Your task to perform on an android device: make emails show in primary in the gmail app Image 0: 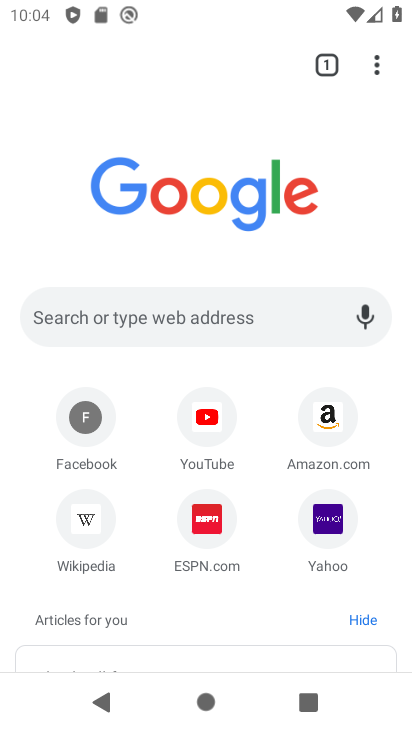
Step 0: press home button
Your task to perform on an android device: make emails show in primary in the gmail app Image 1: 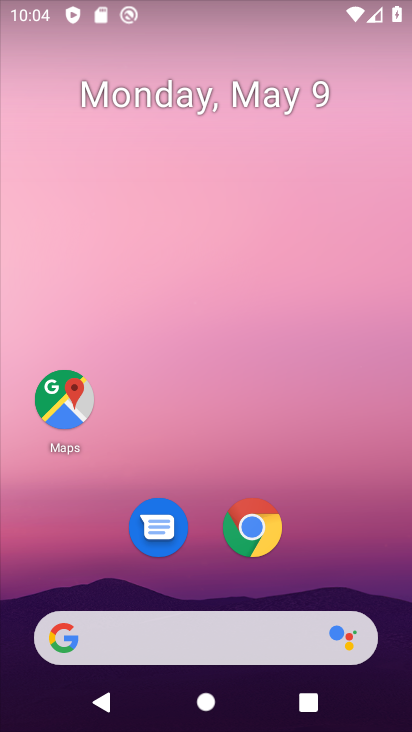
Step 1: drag from (328, 551) to (256, 190)
Your task to perform on an android device: make emails show in primary in the gmail app Image 2: 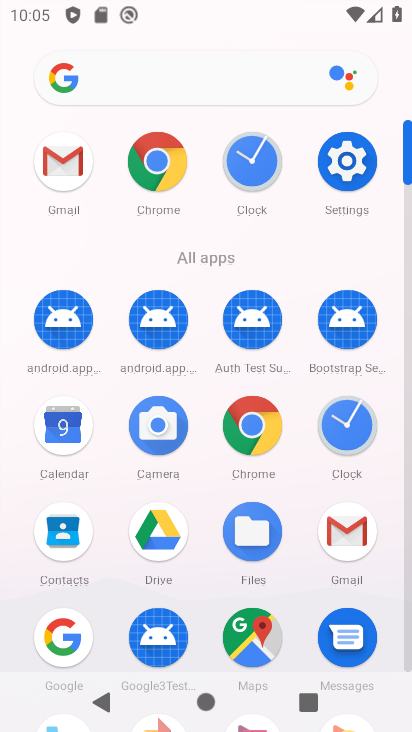
Step 2: click (54, 162)
Your task to perform on an android device: make emails show in primary in the gmail app Image 3: 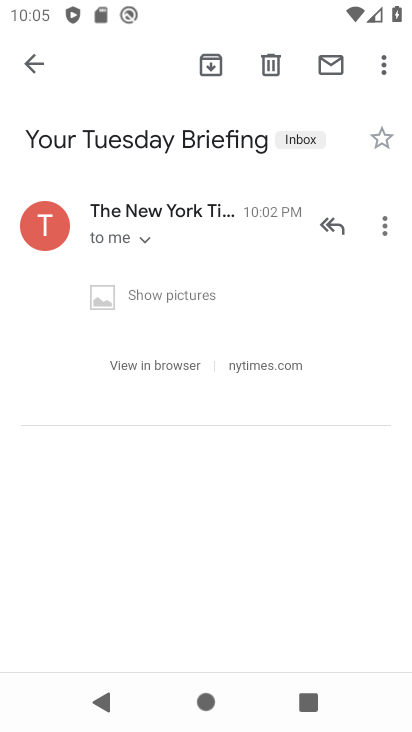
Step 3: press back button
Your task to perform on an android device: make emails show in primary in the gmail app Image 4: 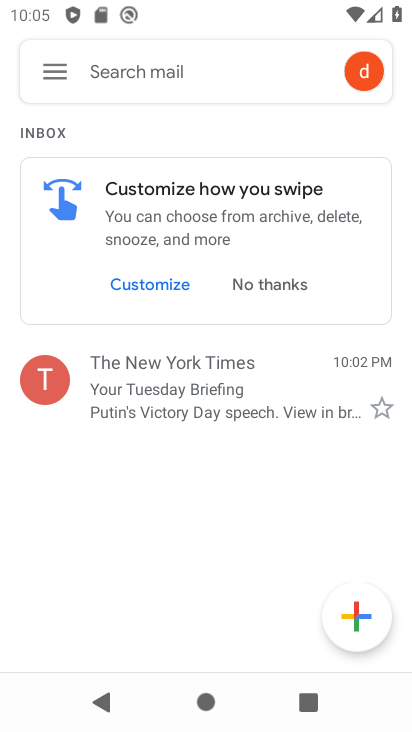
Step 4: press back button
Your task to perform on an android device: make emails show in primary in the gmail app Image 5: 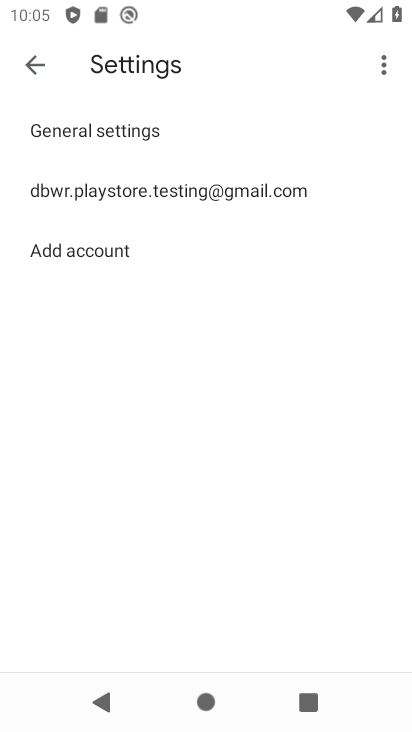
Step 5: press back button
Your task to perform on an android device: make emails show in primary in the gmail app Image 6: 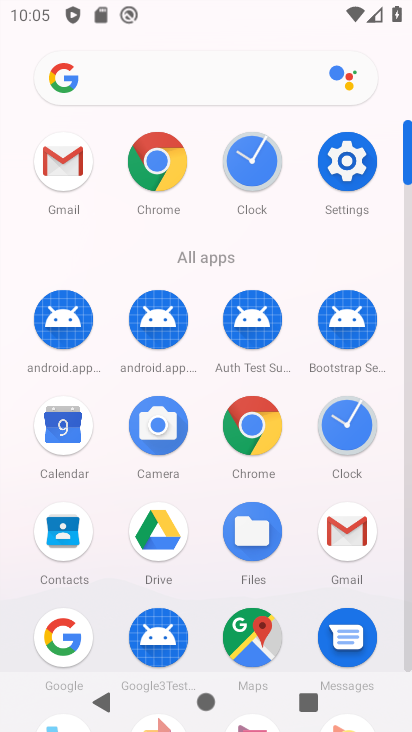
Step 6: click (57, 167)
Your task to perform on an android device: make emails show in primary in the gmail app Image 7: 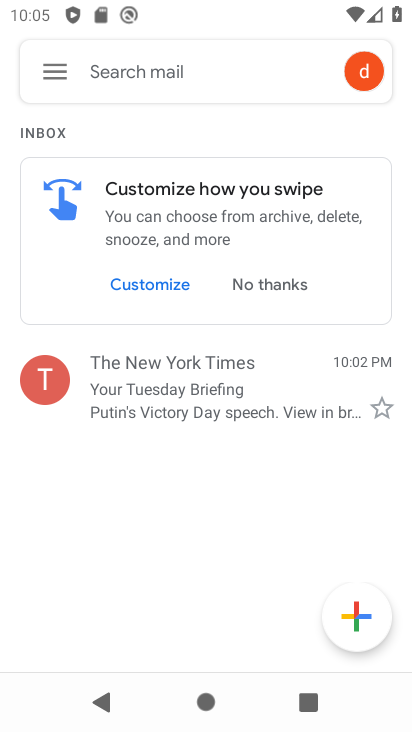
Step 7: click (64, 79)
Your task to perform on an android device: make emails show in primary in the gmail app Image 8: 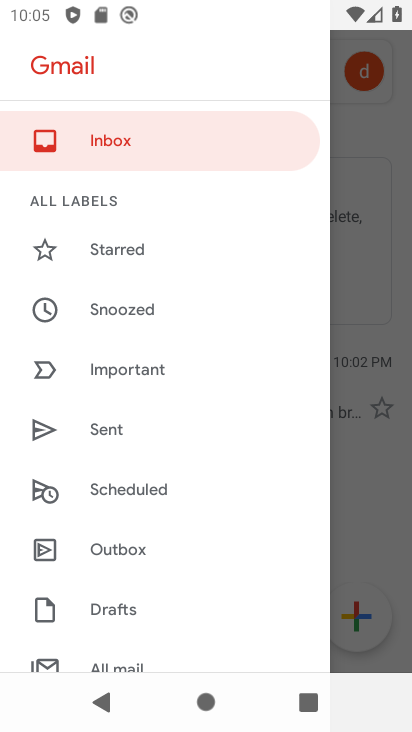
Step 8: drag from (91, 510) to (130, 382)
Your task to perform on an android device: make emails show in primary in the gmail app Image 9: 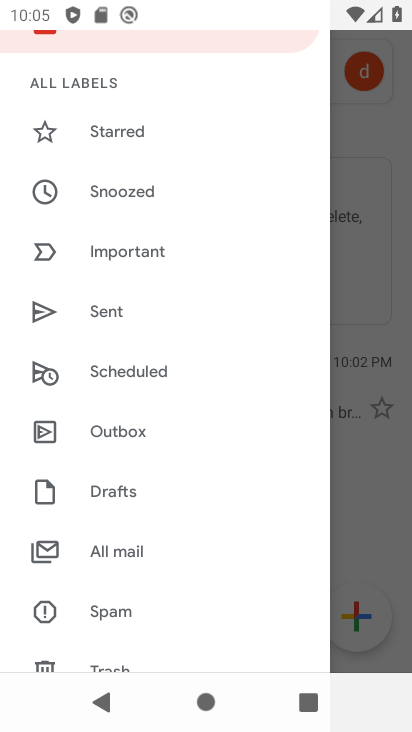
Step 9: drag from (124, 560) to (174, 422)
Your task to perform on an android device: make emails show in primary in the gmail app Image 10: 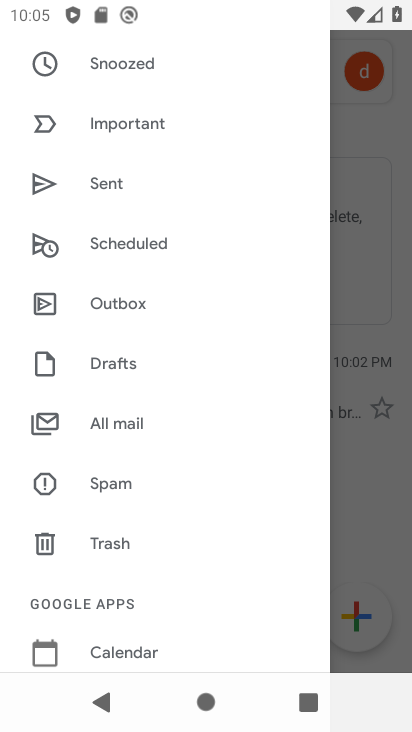
Step 10: drag from (112, 576) to (171, 440)
Your task to perform on an android device: make emails show in primary in the gmail app Image 11: 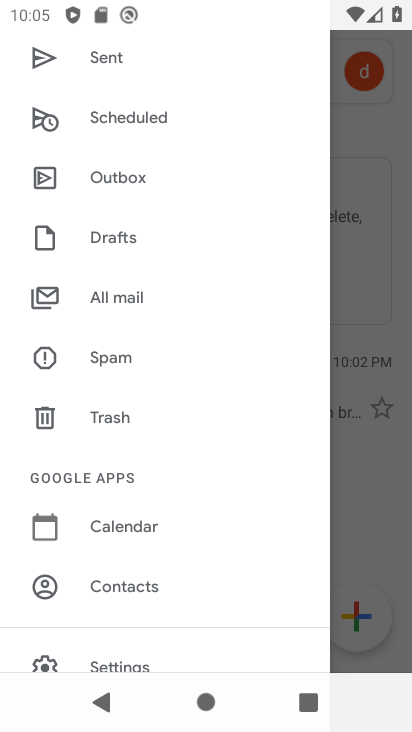
Step 11: drag from (97, 647) to (181, 518)
Your task to perform on an android device: make emails show in primary in the gmail app Image 12: 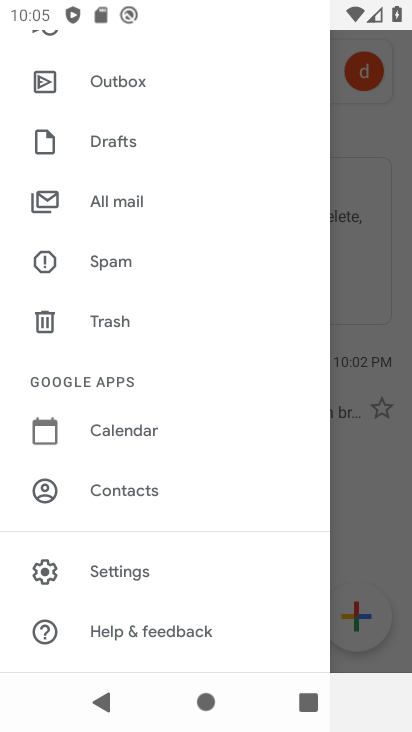
Step 12: click (118, 567)
Your task to perform on an android device: make emails show in primary in the gmail app Image 13: 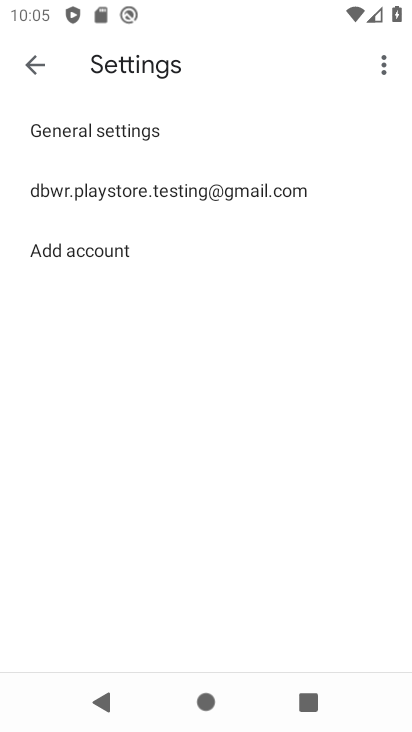
Step 13: click (175, 185)
Your task to perform on an android device: make emails show in primary in the gmail app Image 14: 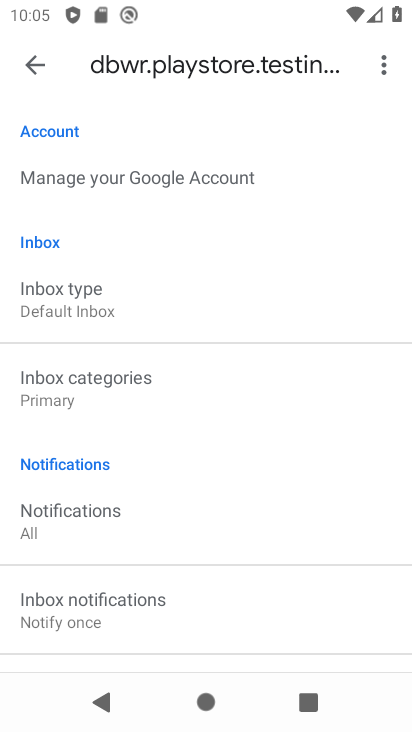
Step 14: press back button
Your task to perform on an android device: make emails show in primary in the gmail app Image 15: 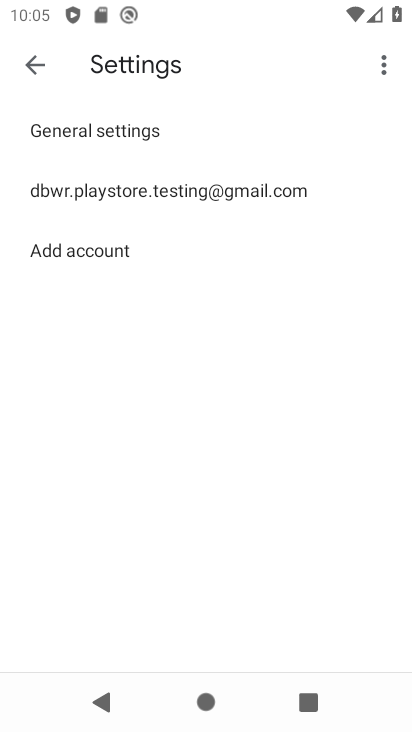
Step 15: press back button
Your task to perform on an android device: make emails show in primary in the gmail app Image 16: 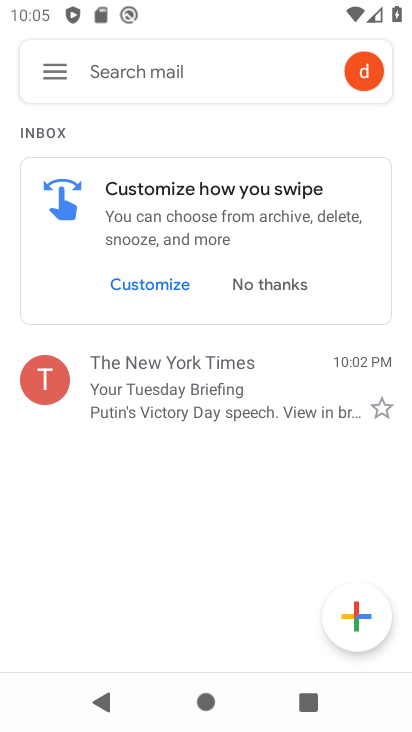
Step 16: click (42, 73)
Your task to perform on an android device: make emails show in primary in the gmail app Image 17: 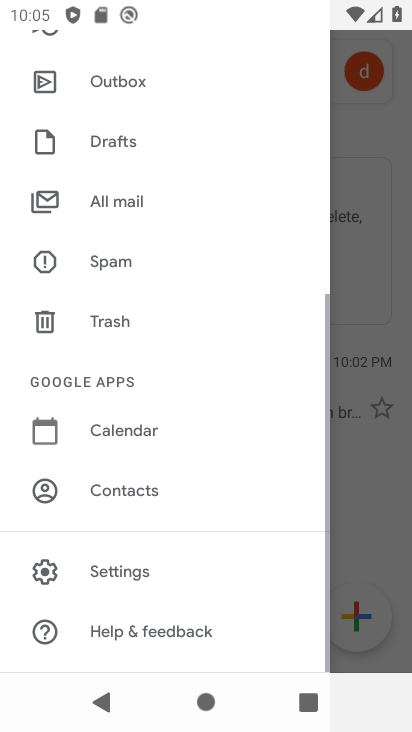
Step 17: drag from (121, 132) to (169, 444)
Your task to perform on an android device: make emails show in primary in the gmail app Image 18: 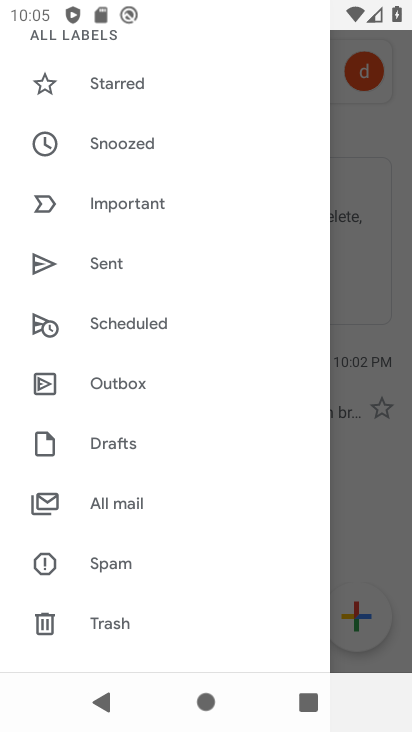
Step 18: drag from (168, 146) to (188, 515)
Your task to perform on an android device: make emails show in primary in the gmail app Image 19: 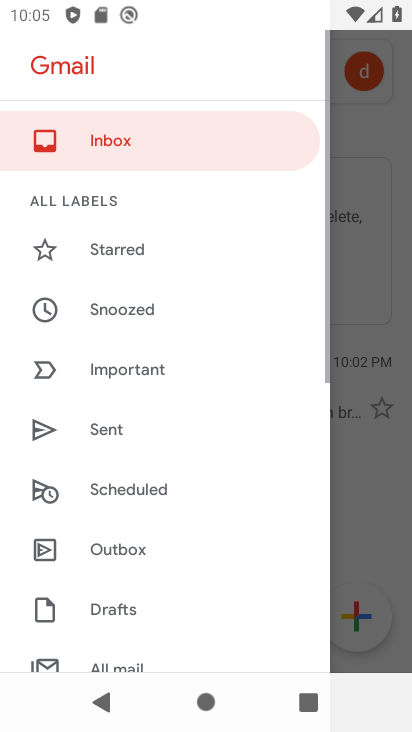
Step 19: click (133, 152)
Your task to perform on an android device: make emails show in primary in the gmail app Image 20: 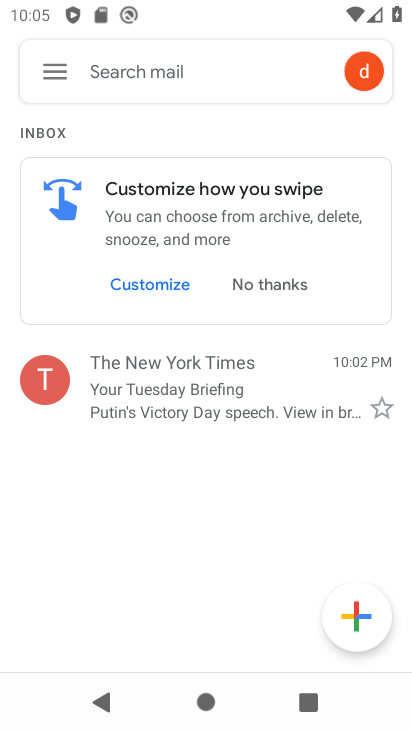
Step 20: click (55, 69)
Your task to perform on an android device: make emails show in primary in the gmail app Image 21: 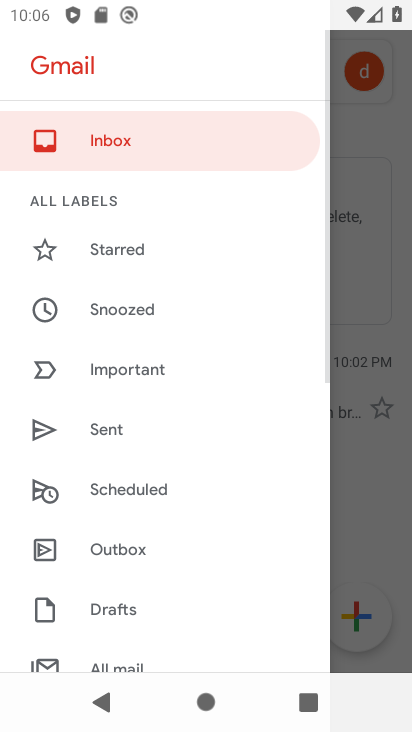
Step 21: drag from (147, 538) to (197, 300)
Your task to perform on an android device: make emails show in primary in the gmail app Image 22: 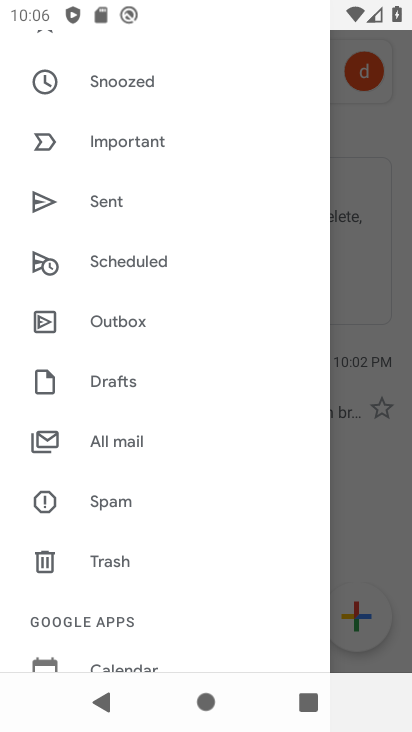
Step 22: click (138, 446)
Your task to perform on an android device: make emails show in primary in the gmail app Image 23: 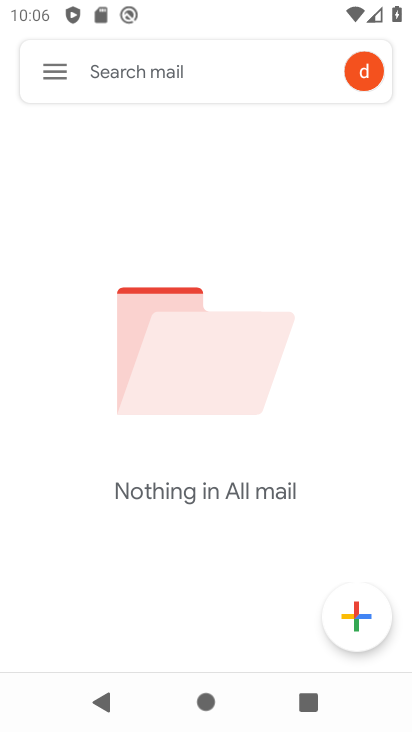
Step 23: click (52, 67)
Your task to perform on an android device: make emails show in primary in the gmail app Image 24: 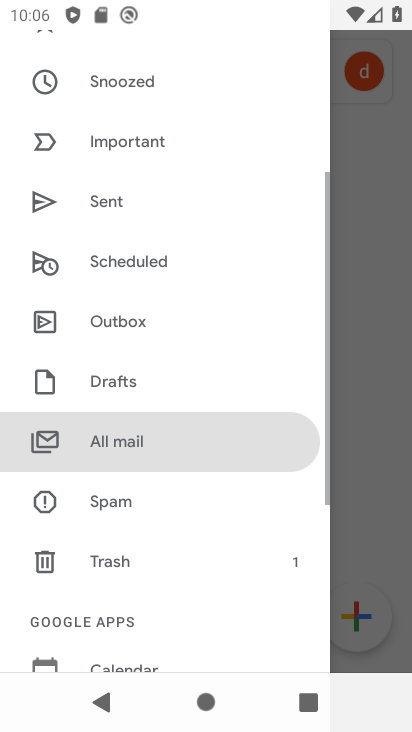
Step 24: drag from (106, 198) to (88, 512)
Your task to perform on an android device: make emails show in primary in the gmail app Image 25: 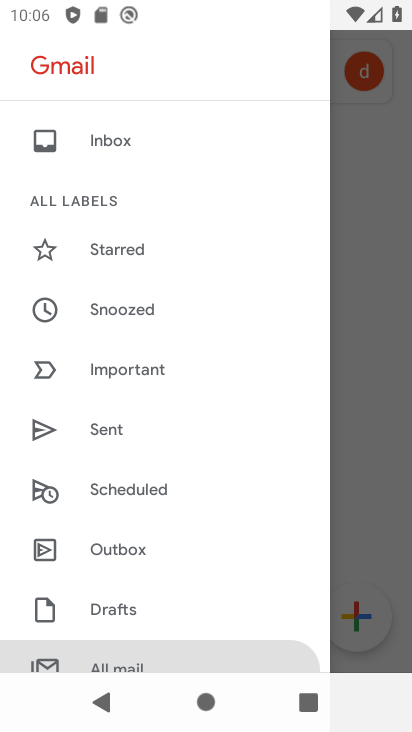
Step 25: drag from (150, 274) to (137, 414)
Your task to perform on an android device: make emails show in primary in the gmail app Image 26: 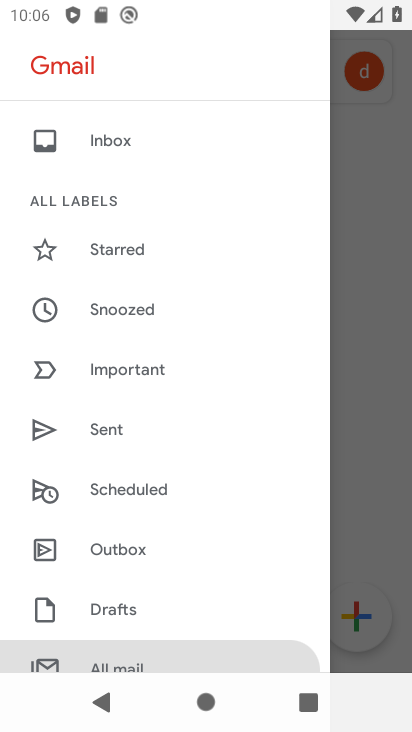
Step 26: click (84, 121)
Your task to perform on an android device: make emails show in primary in the gmail app Image 27: 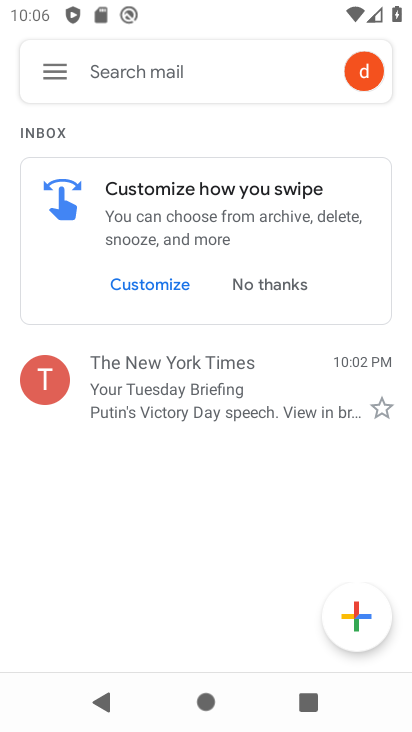
Step 27: task complete